Your task to perform on an android device: Go to Wikipedia Image 0: 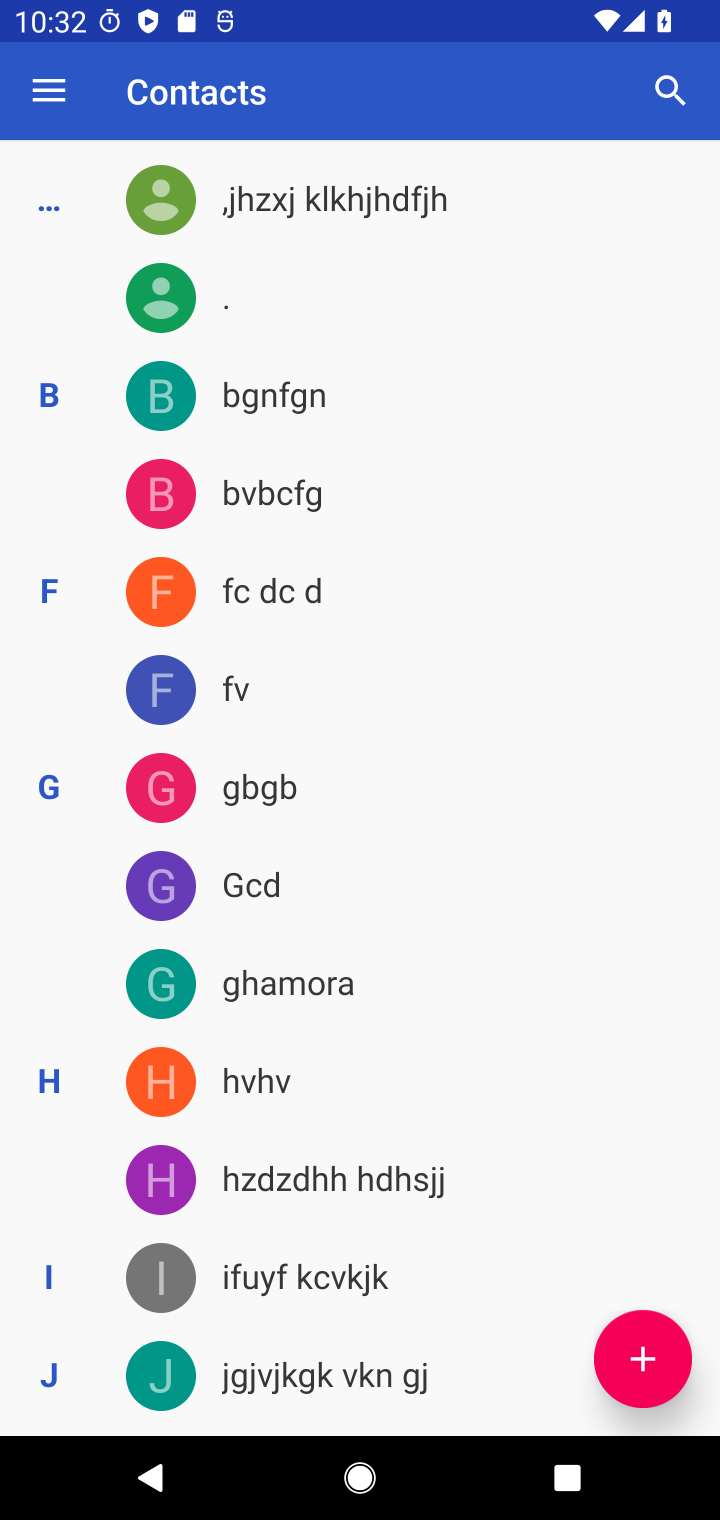
Step 0: press home button
Your task to perform on an android device: Go to Wikipedia Image 1: 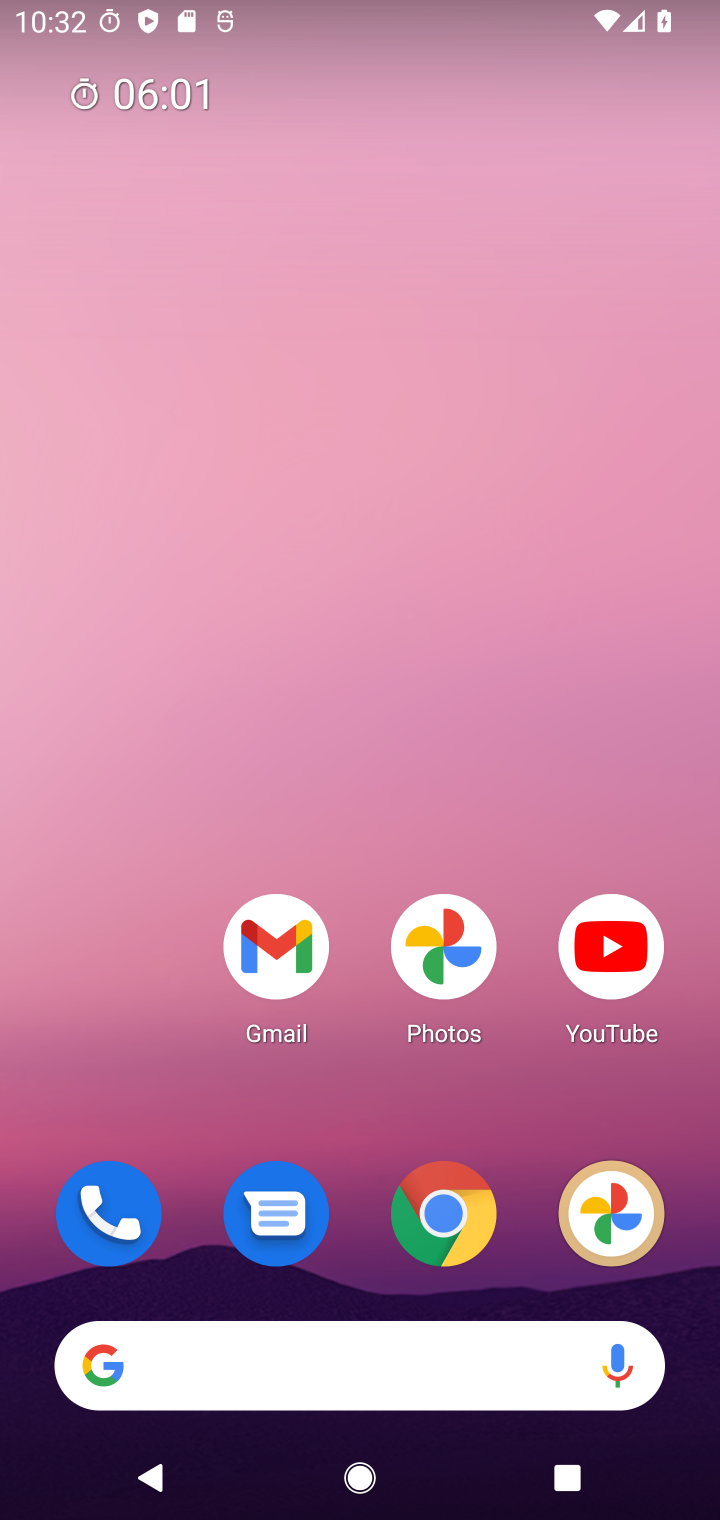
Step 1: drag from (395, 1107) to (355, 288)
Your task to perform on an android device: Go to Wikipedia Image 2: 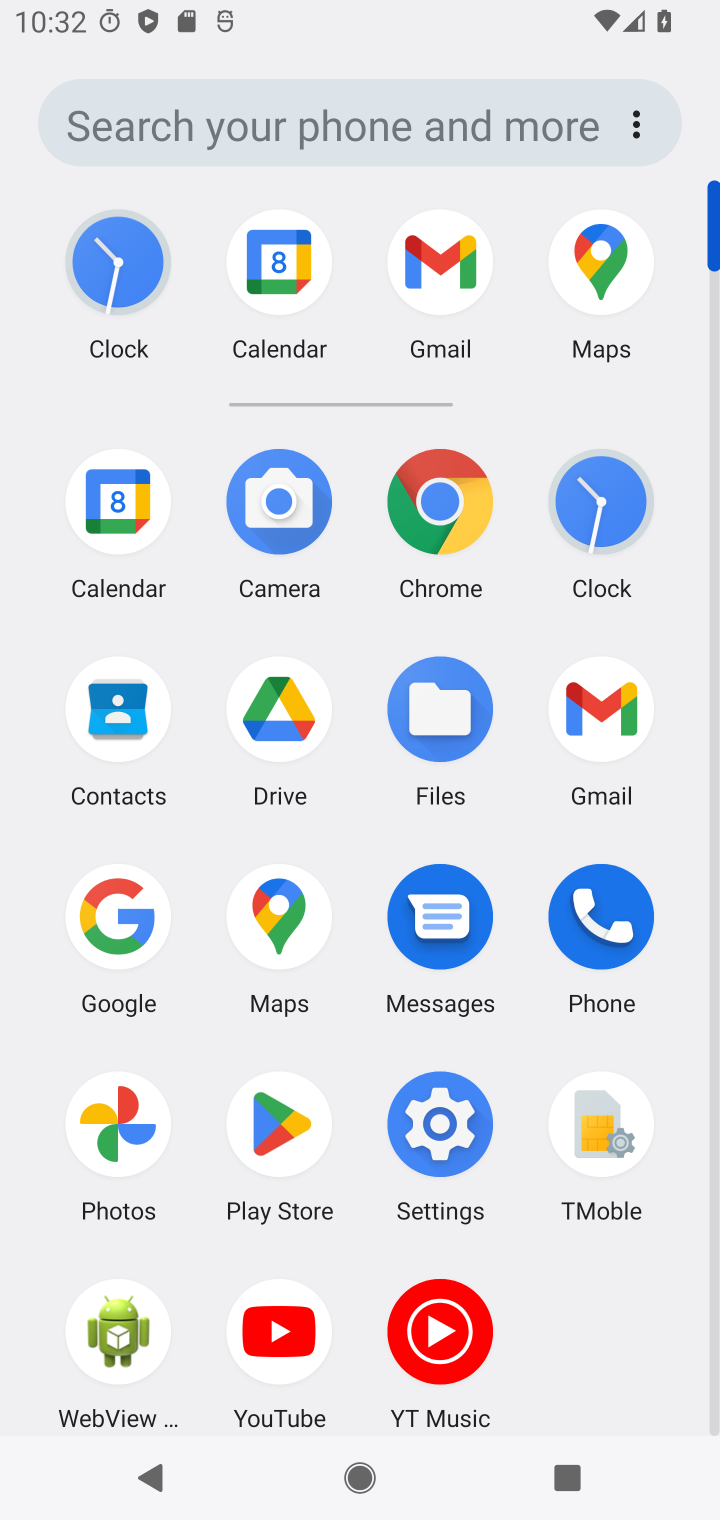
Step 2: click (430, 535)
Your task to perform on an android device: Go to Wikipedia Image 3: 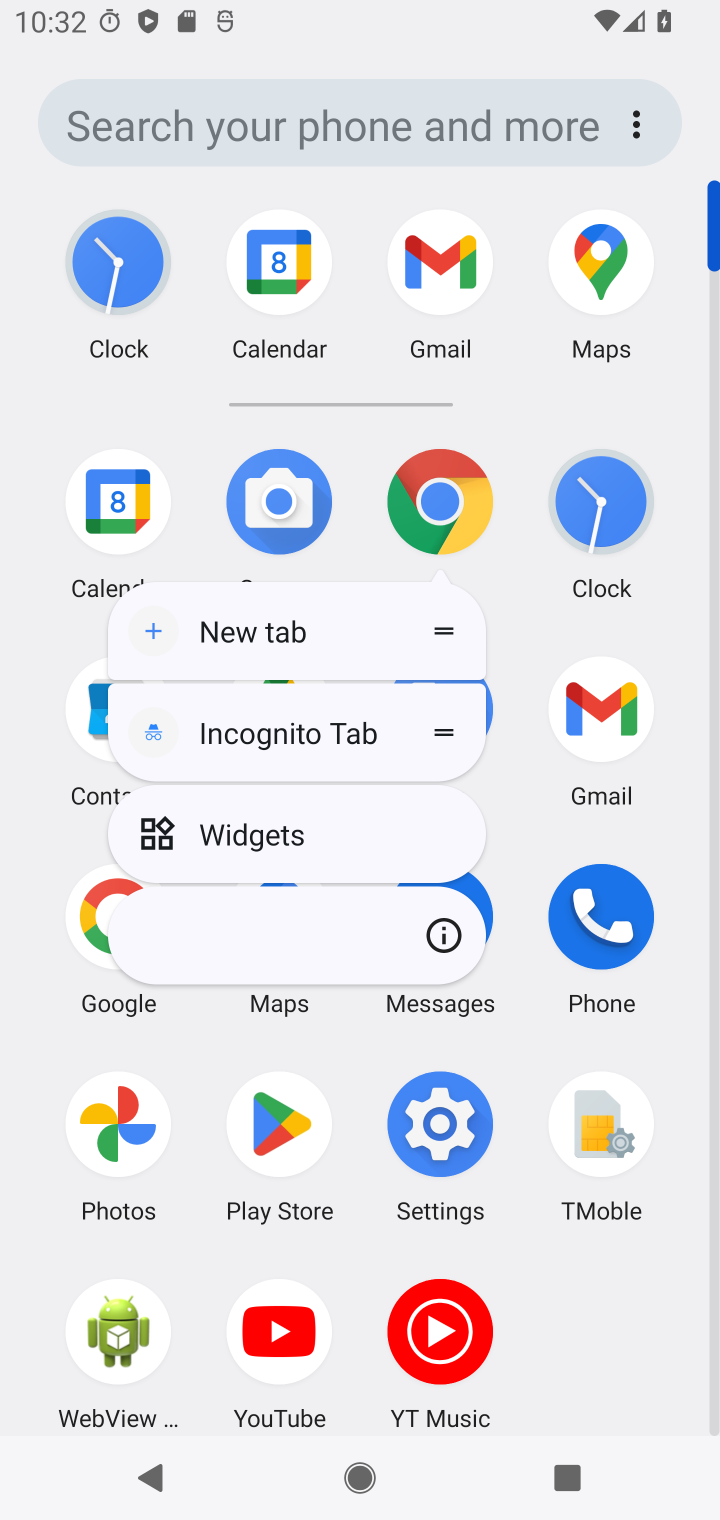
Step 3: click (462, 519)
Your task to perform on an android device: Go to Wikipedia Image 4: 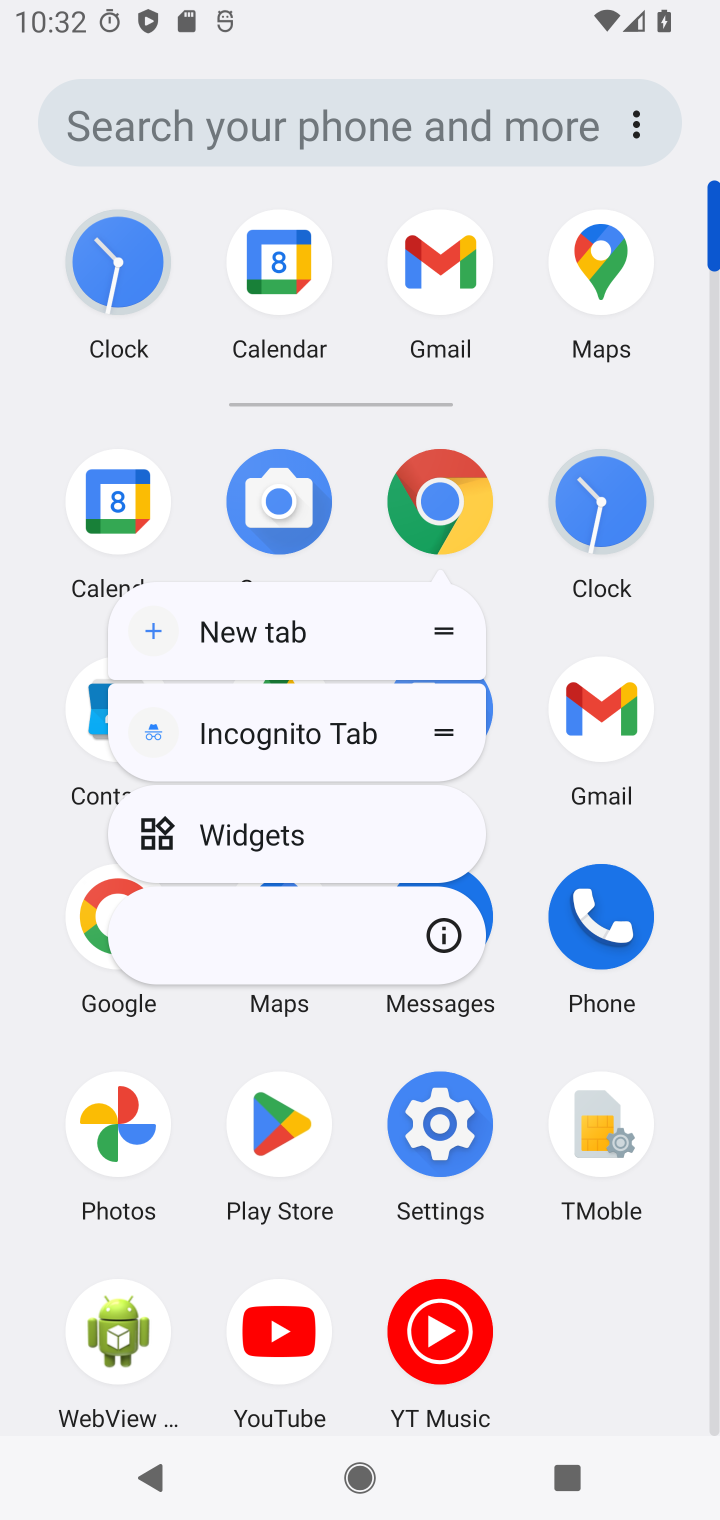
Step 4: click (449, 516)
Your task to perform on an android device: Go to Wikipedia Image 5: 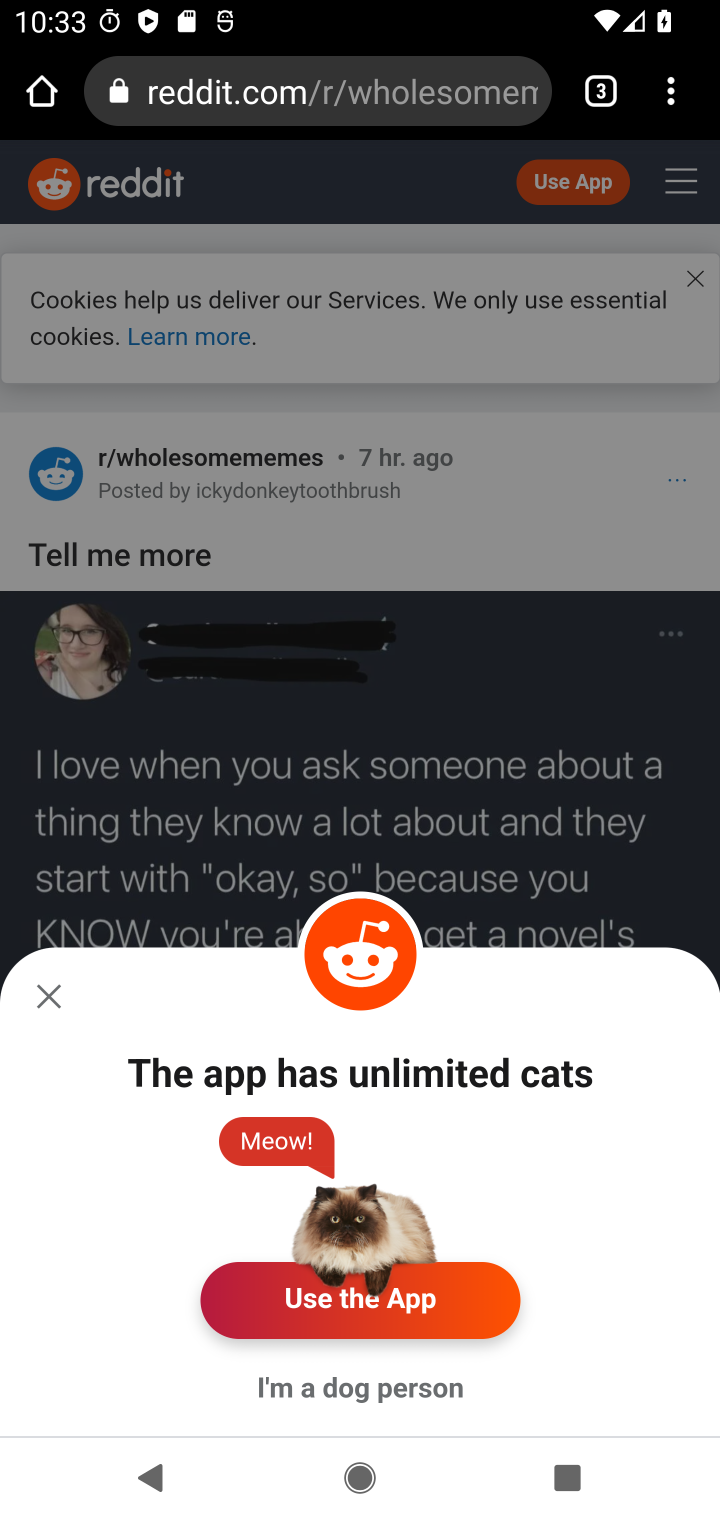
Step 5: click (432, 667)
Your task to perform on an android device: Go to Wikipedia Image 6: 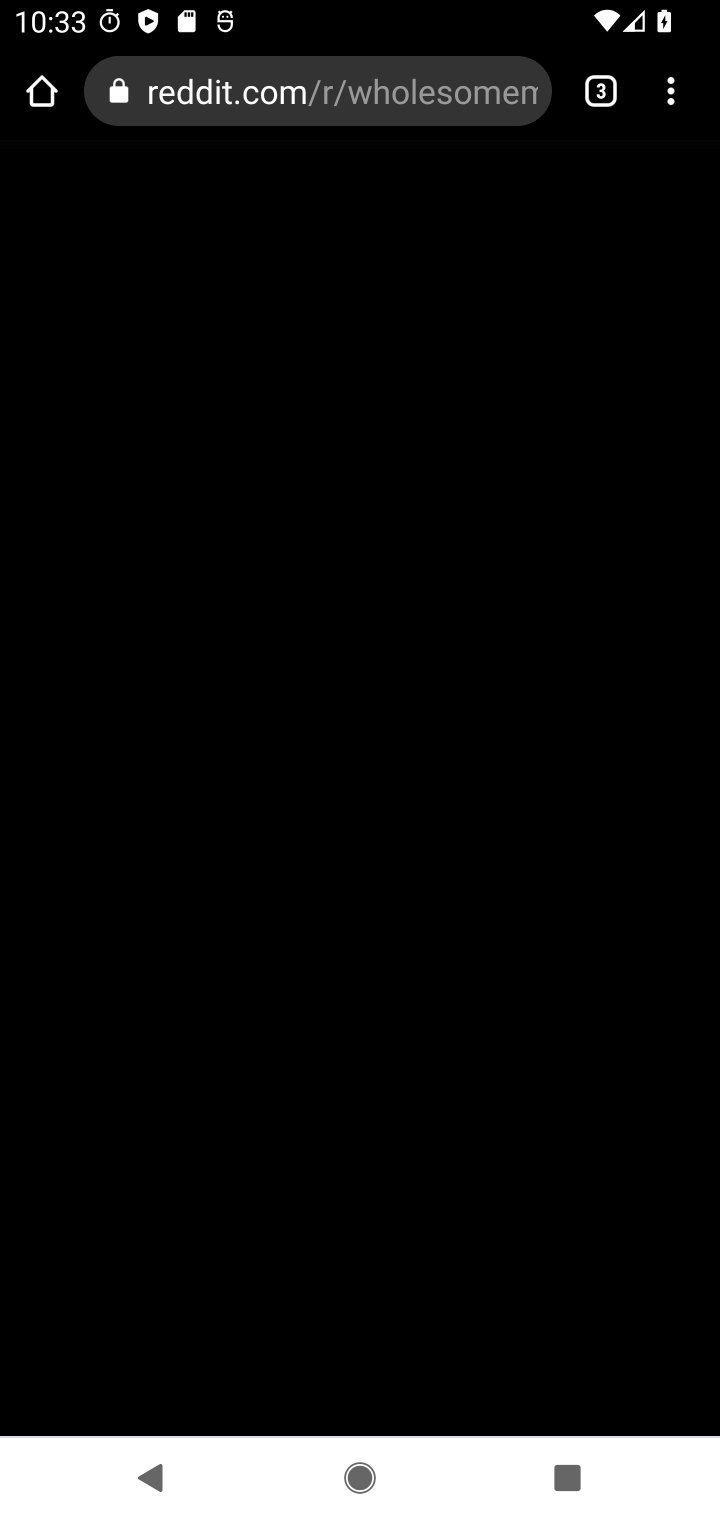
Step 6: click (47, 1017)
Your task to perform on an android device: Go to Wikipedia Image 7: 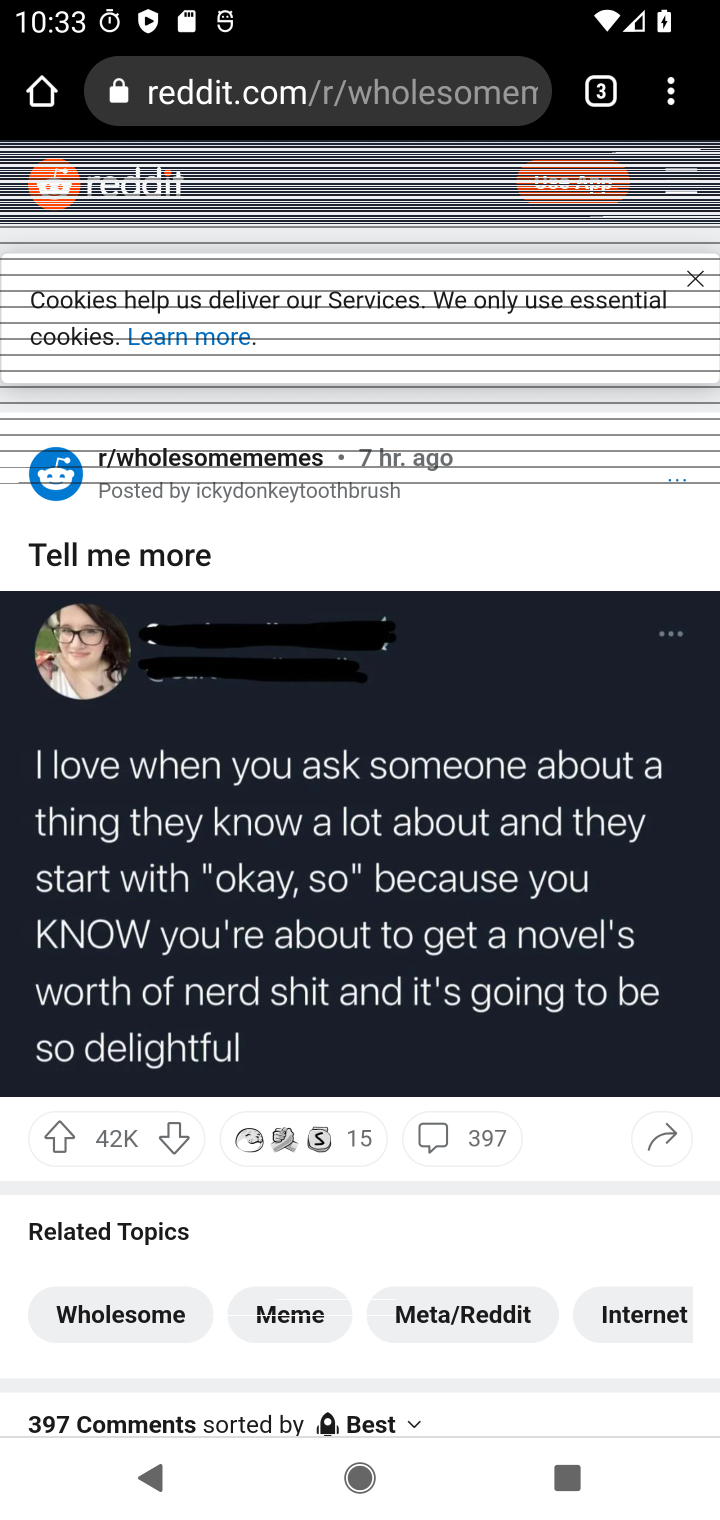
Step 7: click (610, 80)
Your task to perform on an android device: Go to Wikipedia Image 8: 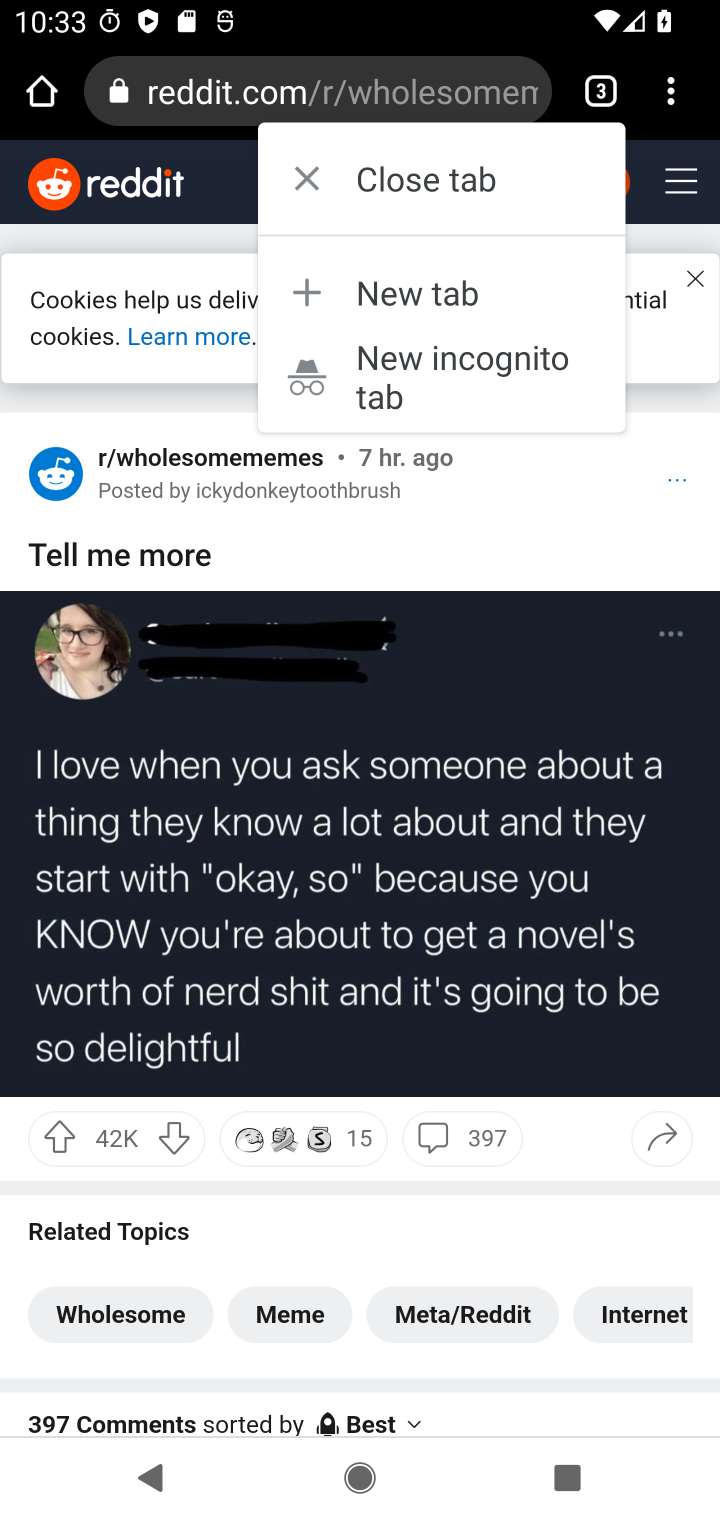
Step 8: click (425, 291)
Your task to perform on an android device: Go to Wikipedia Image 9: 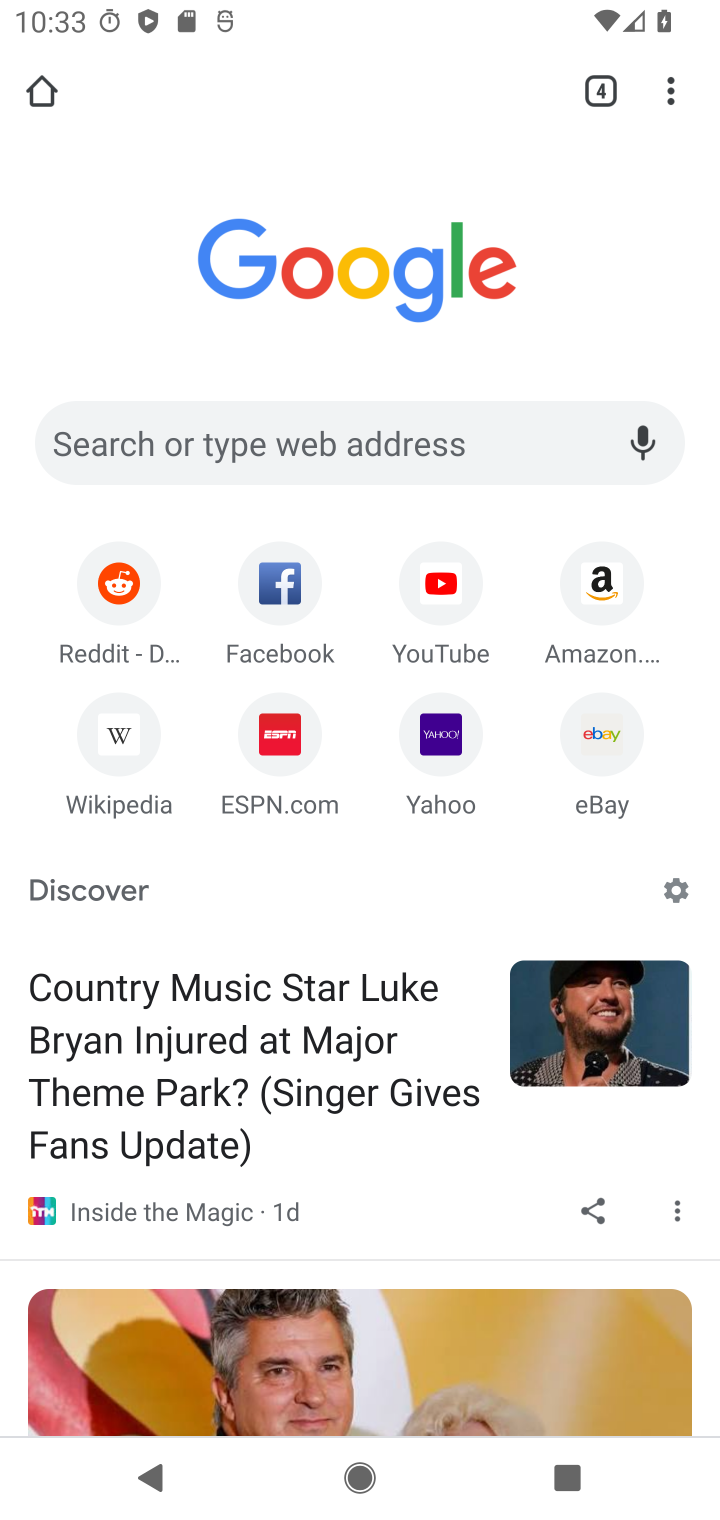
Step 9: click (134, 753)
Your task to perform on an android device: Go to Wikipedia Image 10: 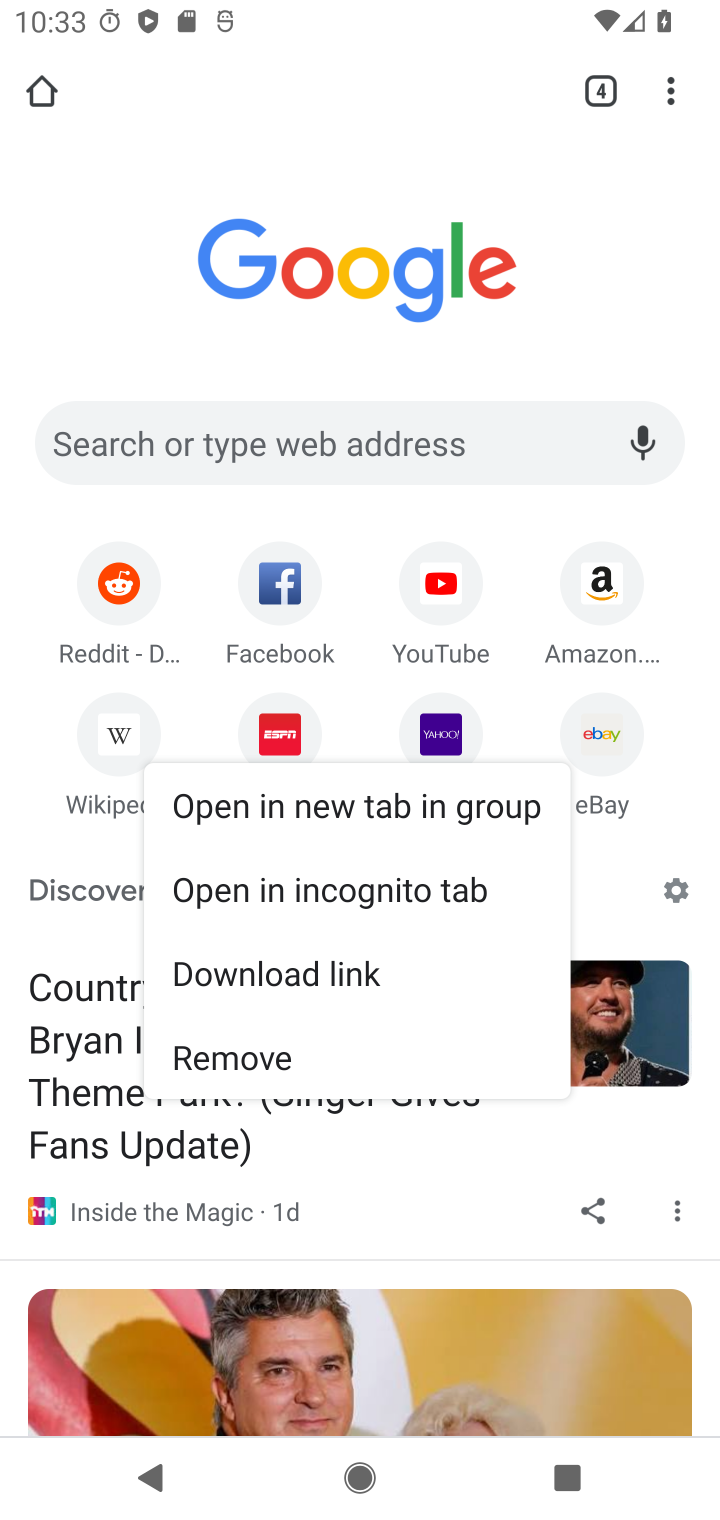
Step 10: click (113, 773)
Your task to perform on an android device: Go to Wikipedia Image 11: 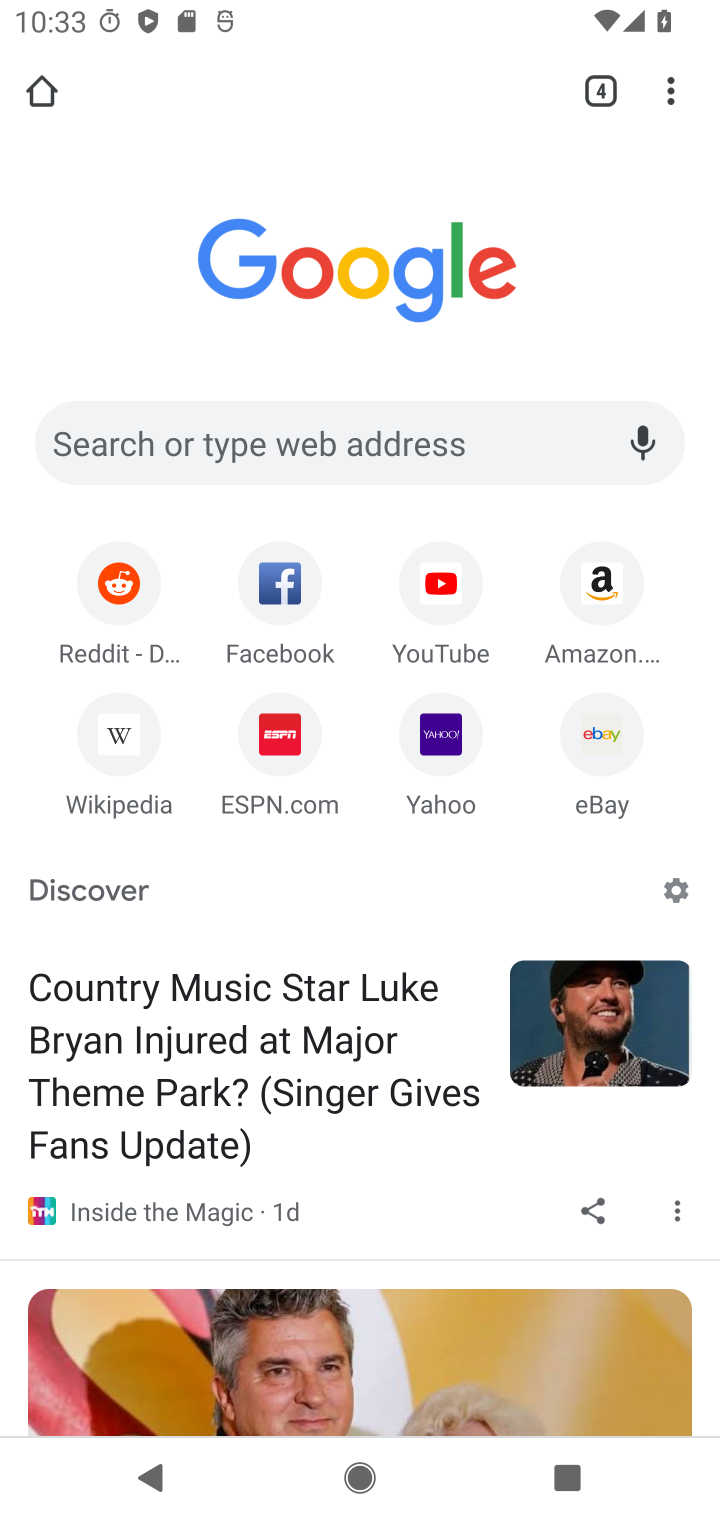
Step 11: click (113, 773)
Your task to perform on an android device: Go to Wikipedia Image 12: 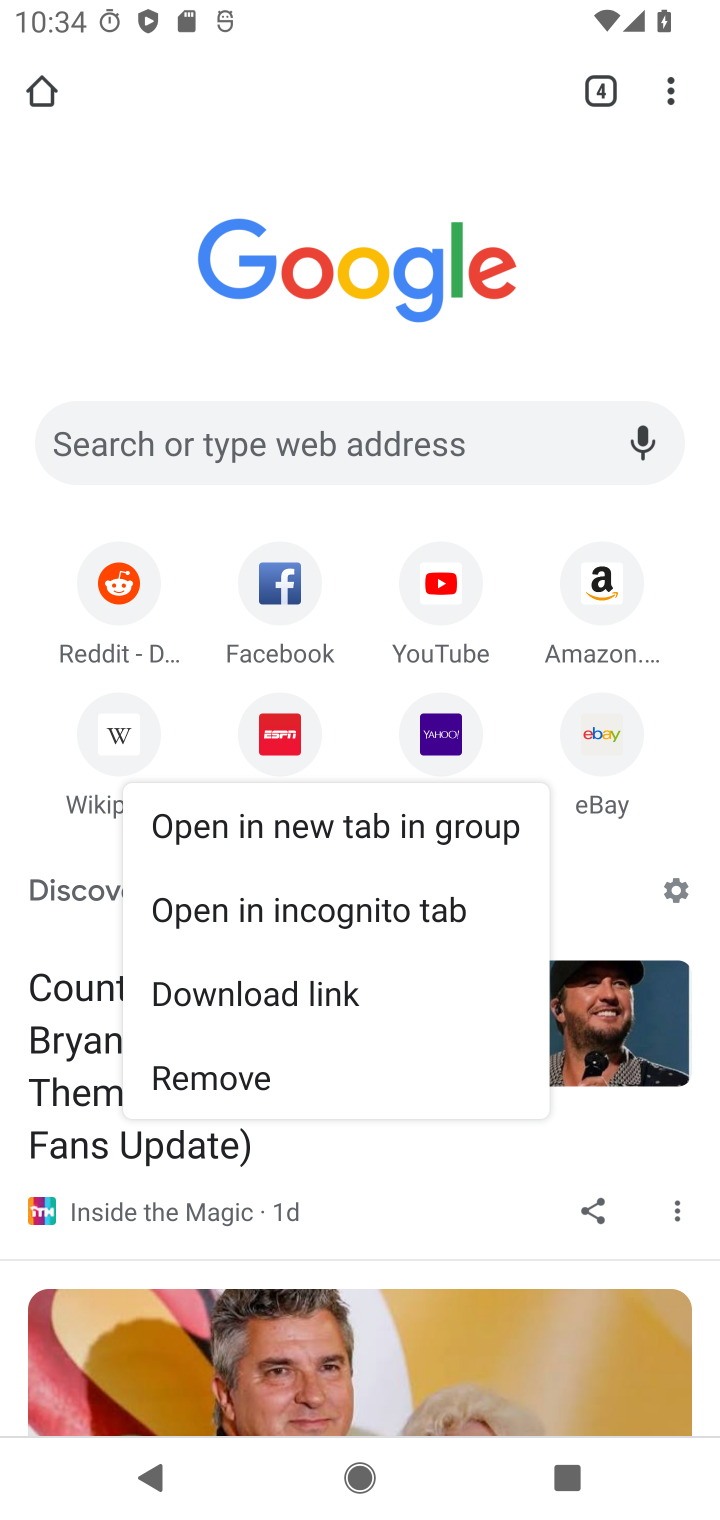
Step 12: click (135, 739)
Your task to perform on an android device: Go to Wikipedia Image 13: 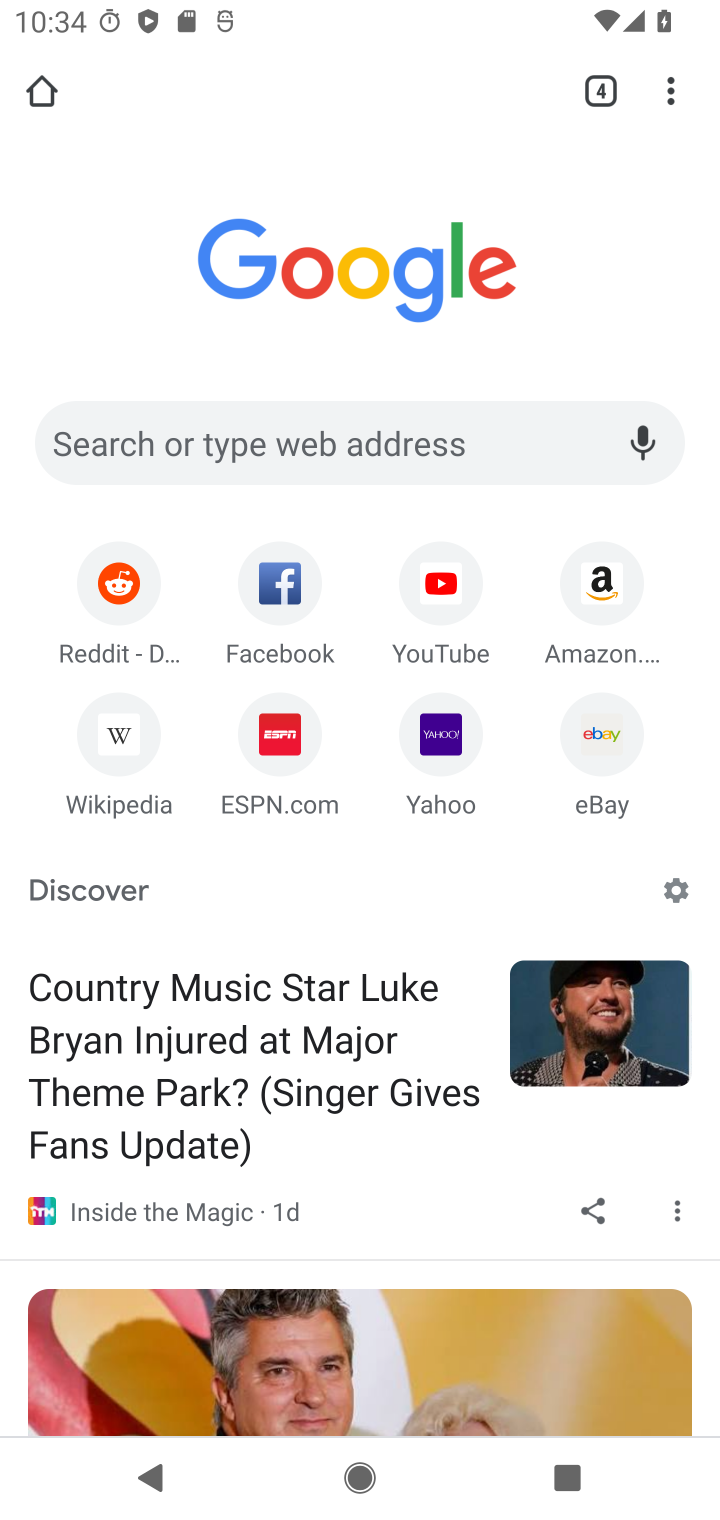
Step 13: click (133, 737)
Your task to perform on an android device: Go to Wikipedia Image 14: 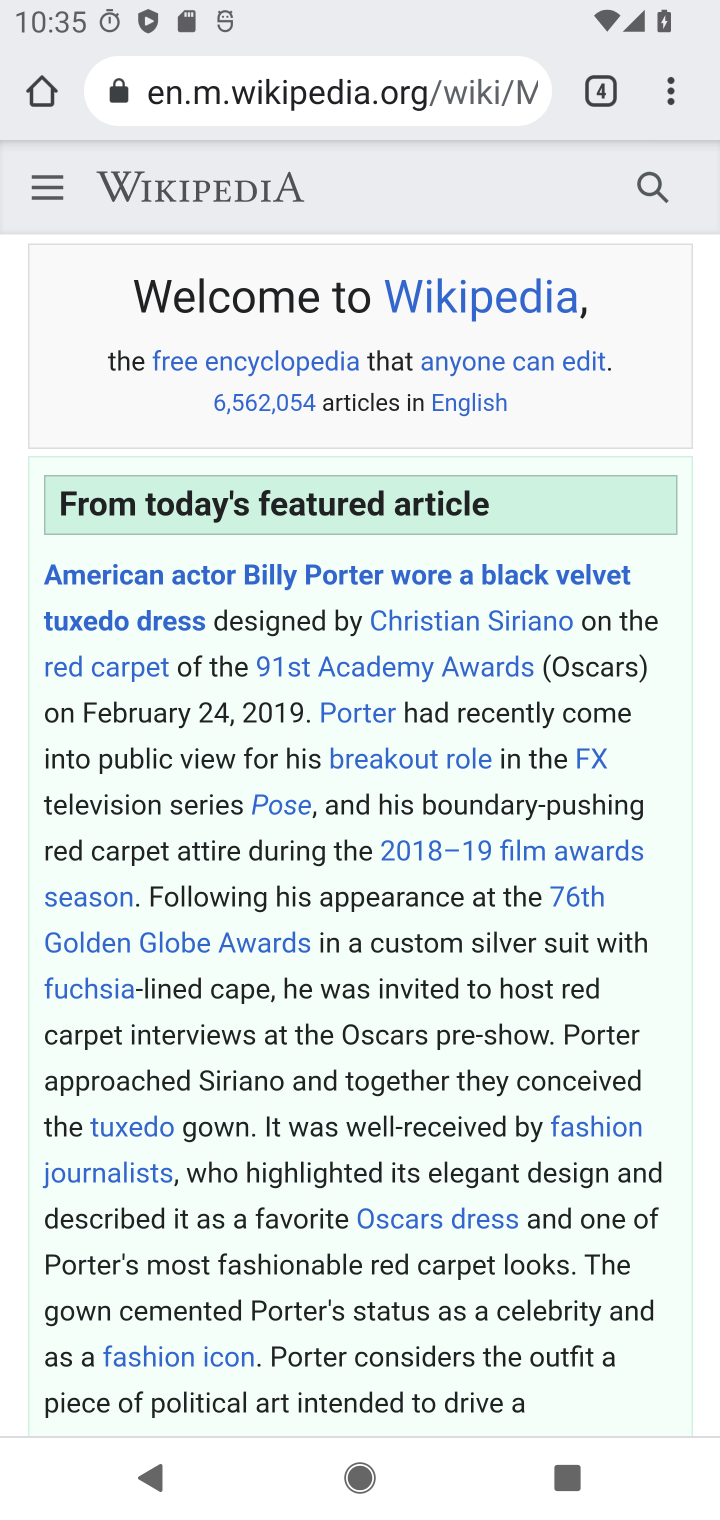
Step 14: task complete